Your task to perform on an android device: change the clock style Image 0: 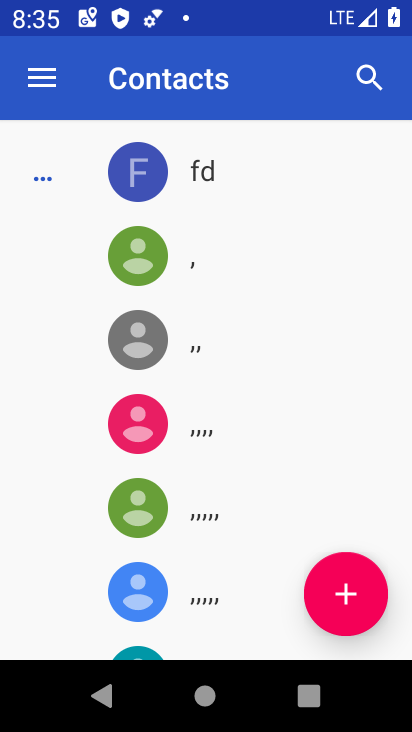
Step 0: press home button
Your task to perform on an android device: change the clock style Image 1: 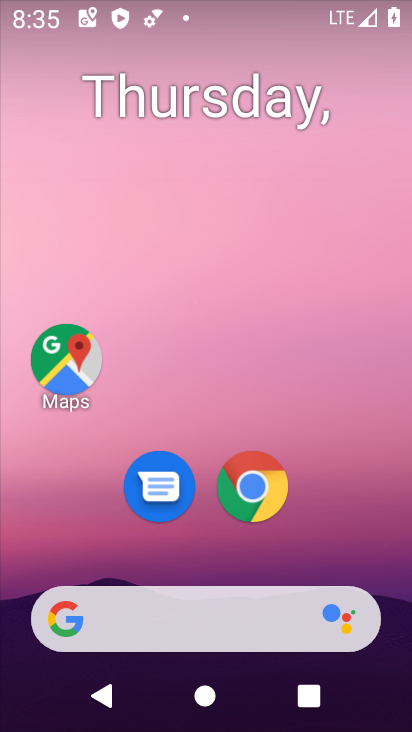
Step 1: drag from (243, 606) to (194, 74)
Your task to perform on an android device: change the clock style Image 2: 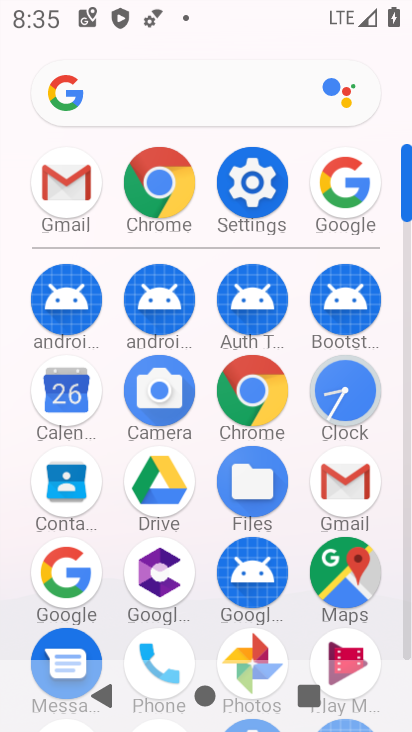
Step 2: click (355, 414)
Your task to perform on an android device: change the clock style Image 3: 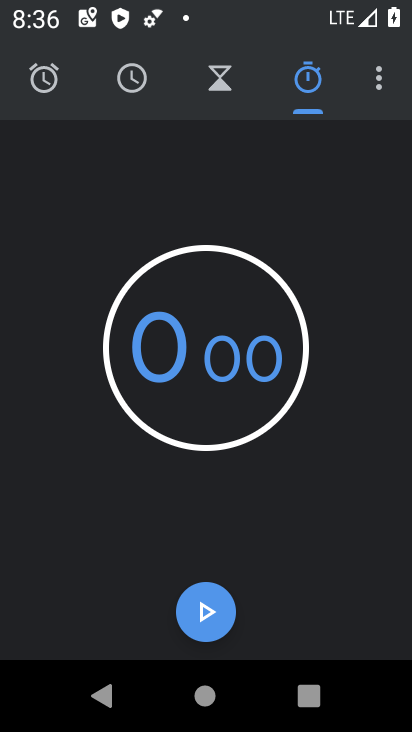
Step 3: click (387, 82)
Your task to perform on an android device: change the clock style Image 4: 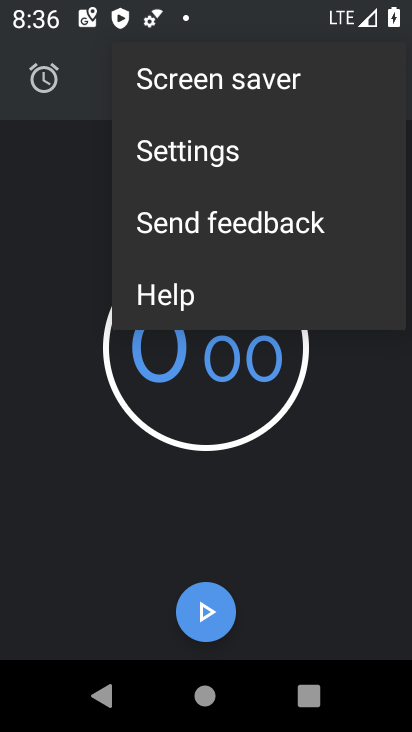
Step 4: click (237, 159)
Your task to perform on an android device: change the clock style Image 5: 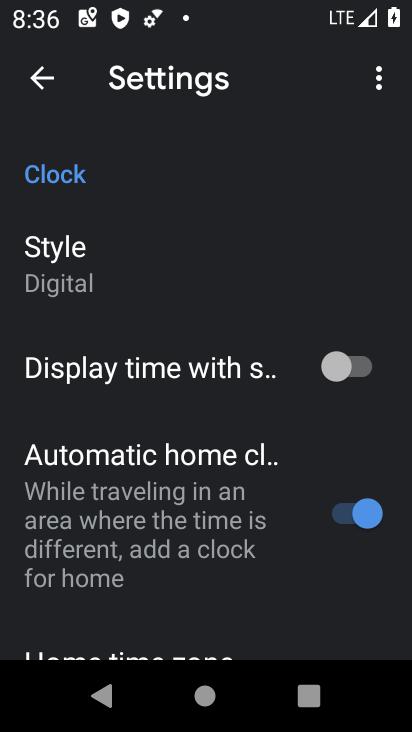
Step 5: click (110, 256)
Your task to perform on an android device: change the clock style Image 6: 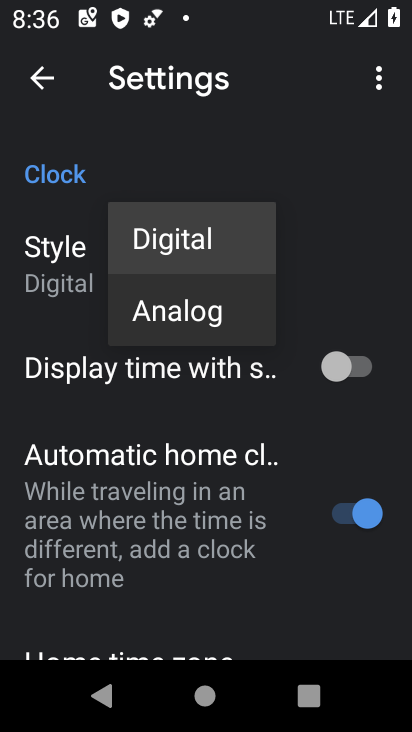
Step 6: click (170, 306)
Your task to perform on an android device: change the clock style Image 7: 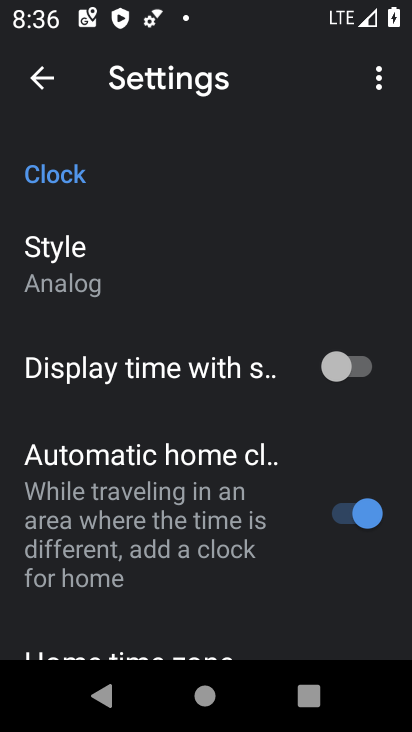
Step 7: task complete